Your task to perform on an android device: change the clock display to show seconds Image 0: 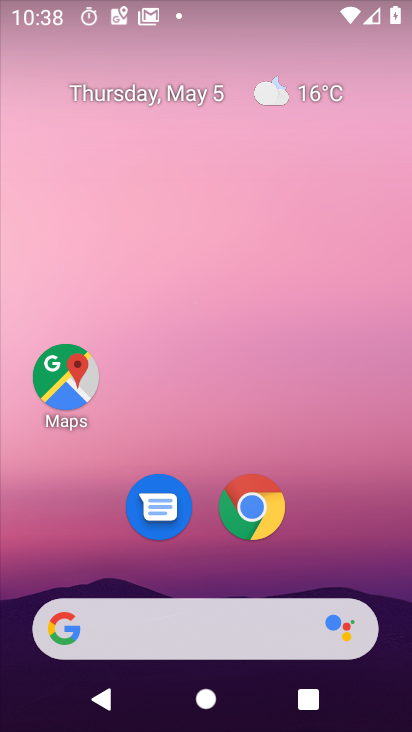
Step 0: drag from (191, 559) to (190, 188)
Your task to perform on an android device: change the clock display to show seconds Image 1: 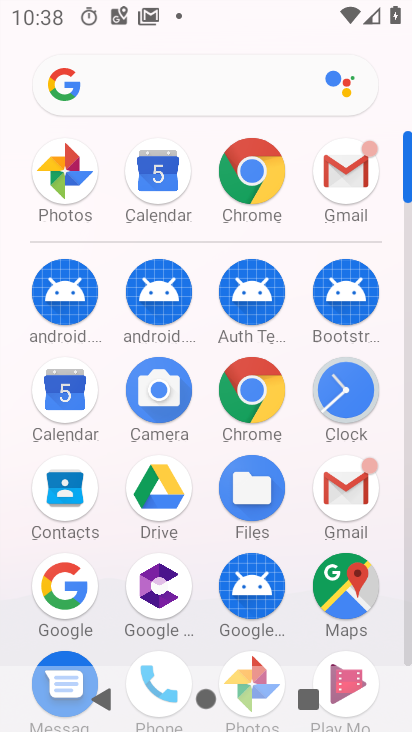
Step 1: click (342, 387)
Your task to perform on an android device: change the clock display to show seconds Image 2: 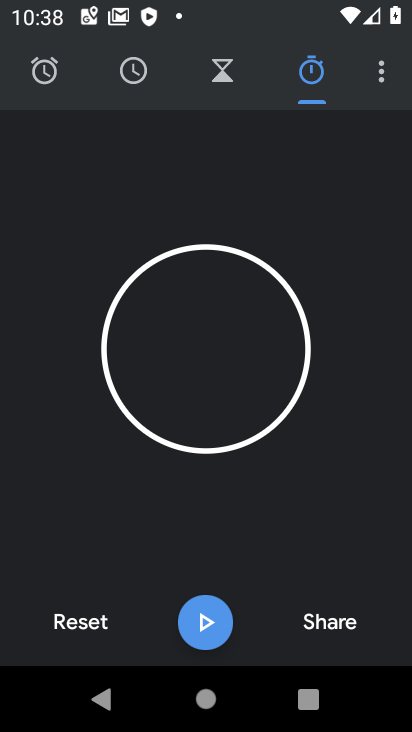
Step 2: click (381, 75)
Your task to perform on an android device: change the clock display to show seconds Image 3: 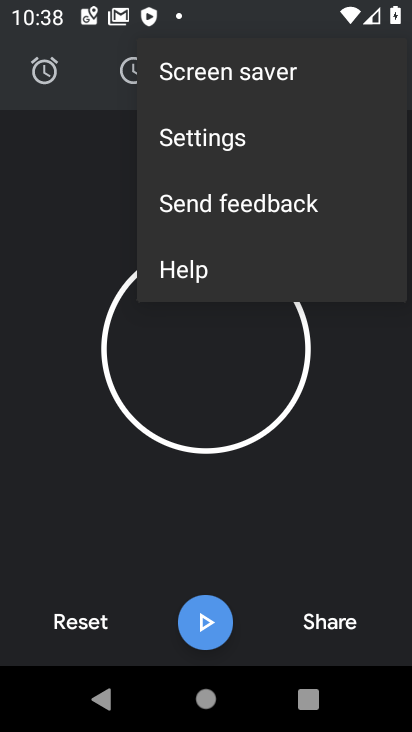
Step 3: click (192, 143)
Your task to perform on an android device: change the clock display to show seconds Image 4: 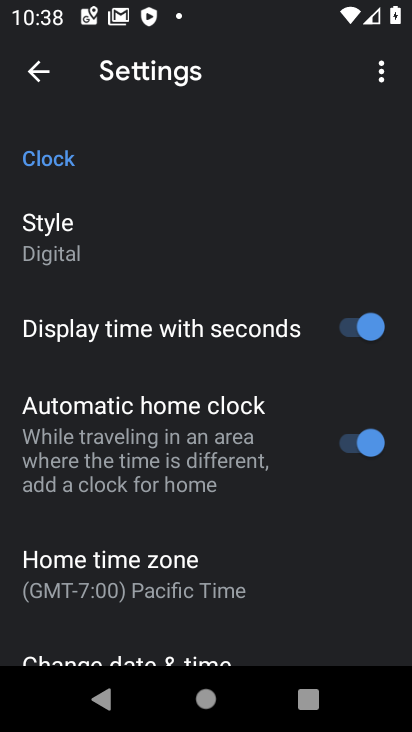
Step 4: task complete